Your task to perform on an android device: Go to display settings Image 0: 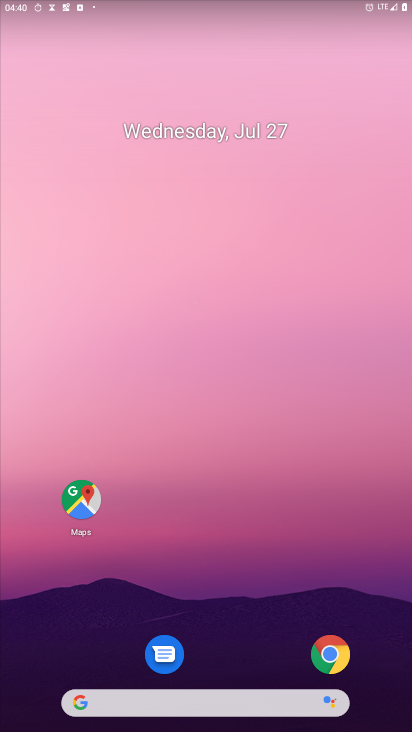
Step 0: drag from (125, 651) to (198, 62)
Your task to perform on an android device: Go to display settings Image 1: 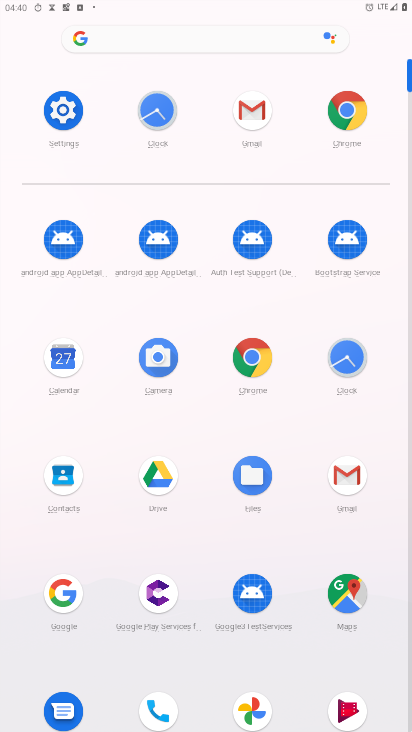
Step 1: click (66, 106)
Your task to perform on an android device: Go to display settings Image 2: 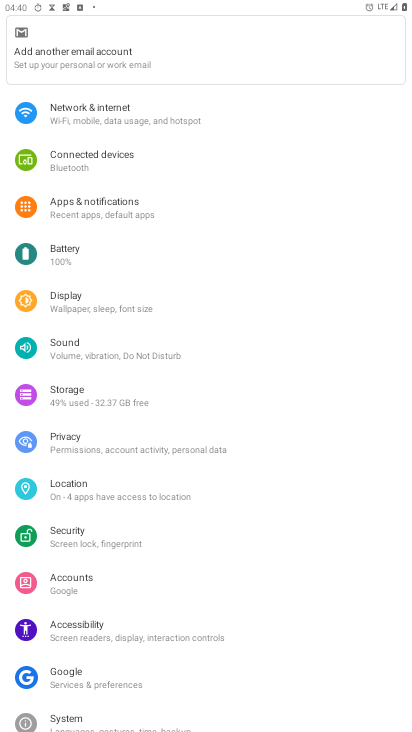
Step 2: click (67, 298)
Your task to perform on an android device: Go to display settings Image 3: 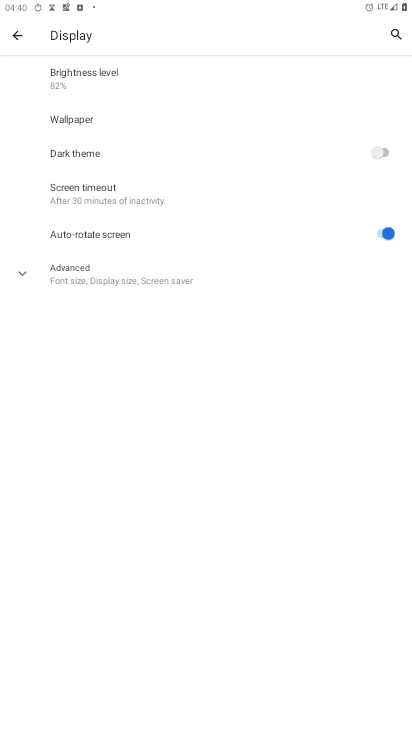
Step 3: task complete